Your task to perform on an android device: Add acer nitro to the cart on walmart Image 0: 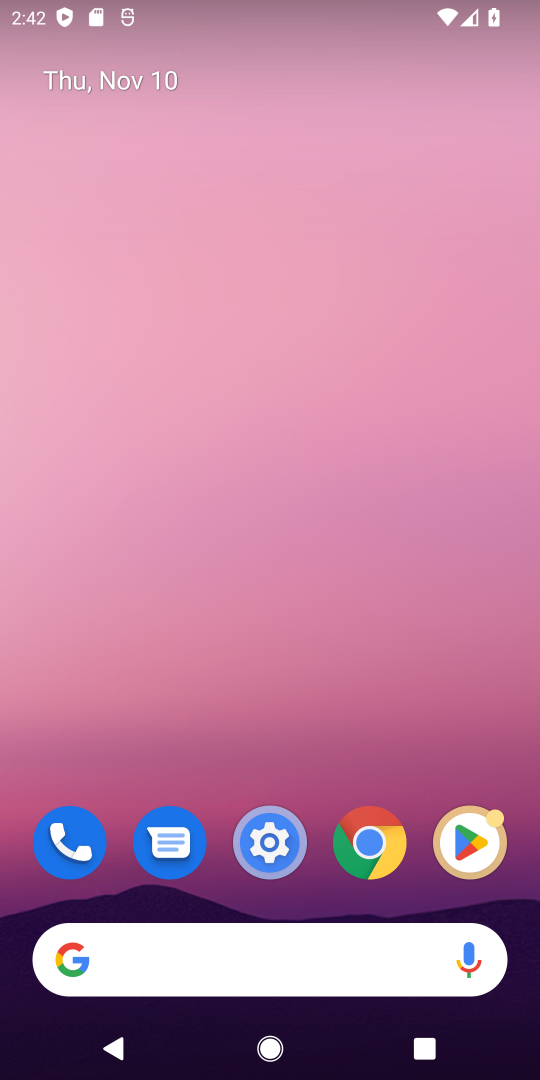
Step 0: press home button
Your task to perform on an android device: Add acer nitro to the cart on walmart Image 1: 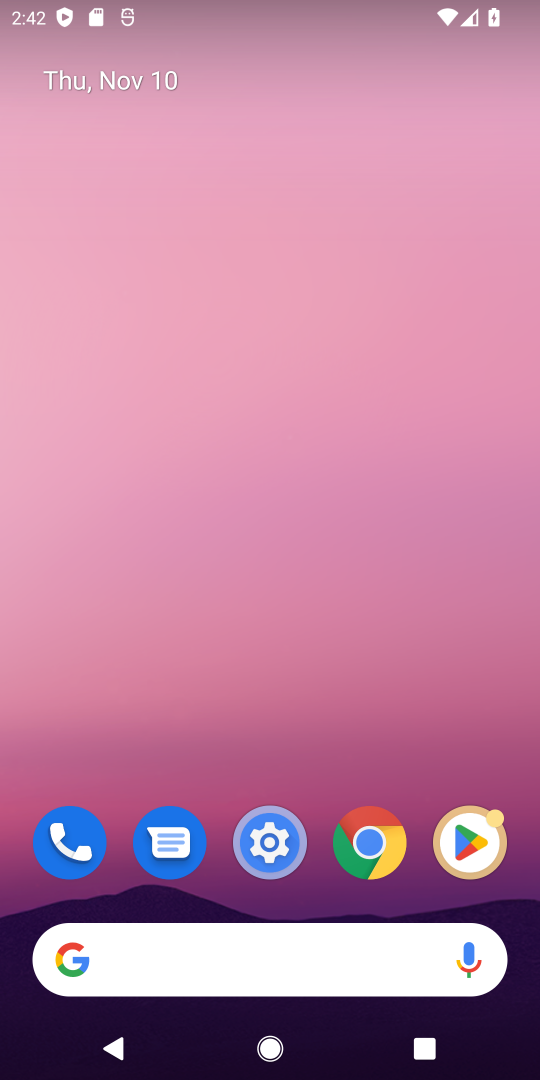
Step 1: click (115, 953)
Your task to perform on an android device: Add acer nitro to the cart on walmart Image 2: 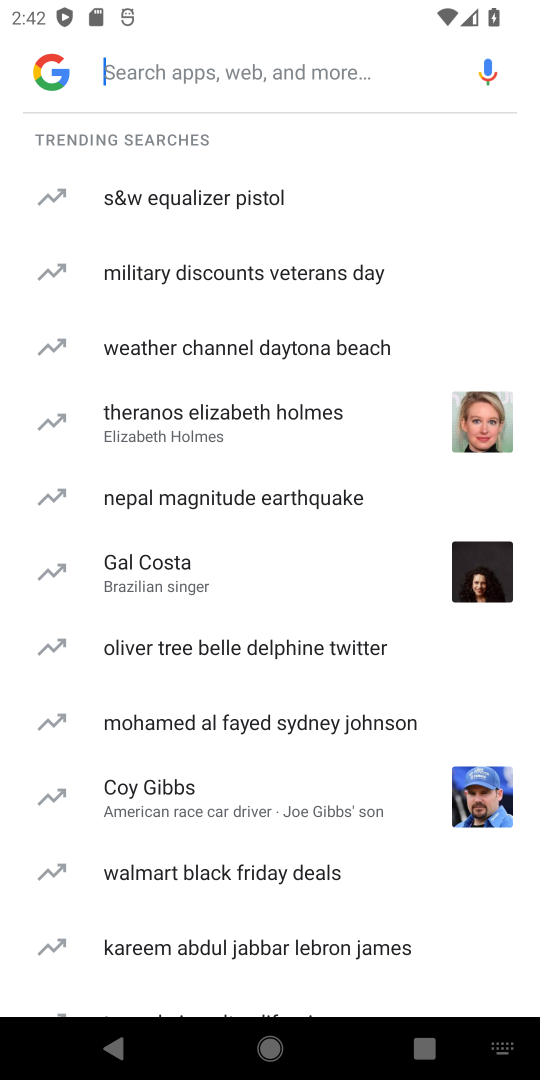
Step 2: type "walmart"
Your task to perform on an android device: Add acer nitro to the cart on walmart Image 3: 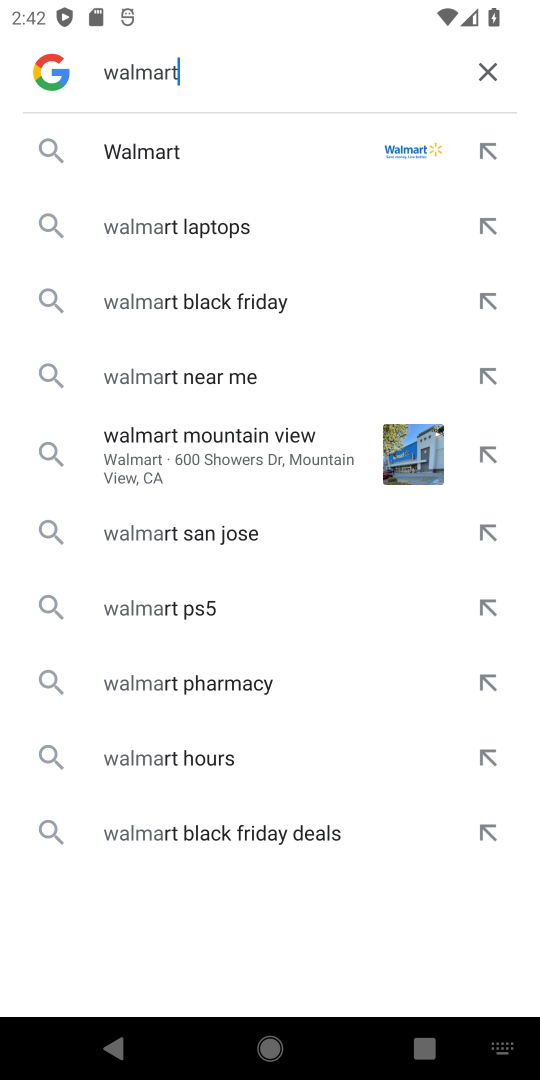
Step 3: press enter
Your task to perform on an android device: Add acer nitro to the cart on walmart Image 4: 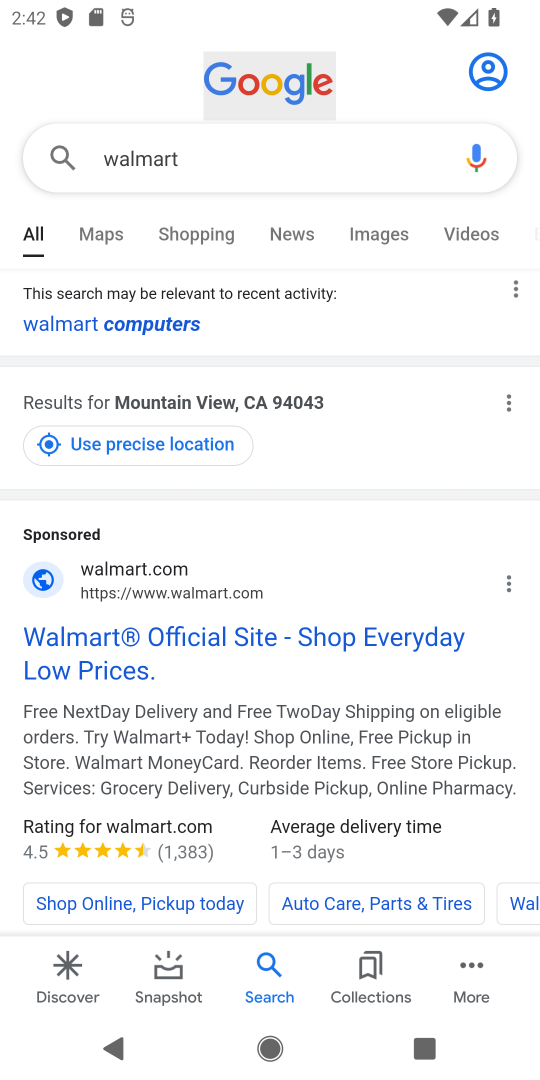
Step 4: click (104, 641)
Your task to perform on an android device: Add acer nitro to the cart on walmart Image 5: 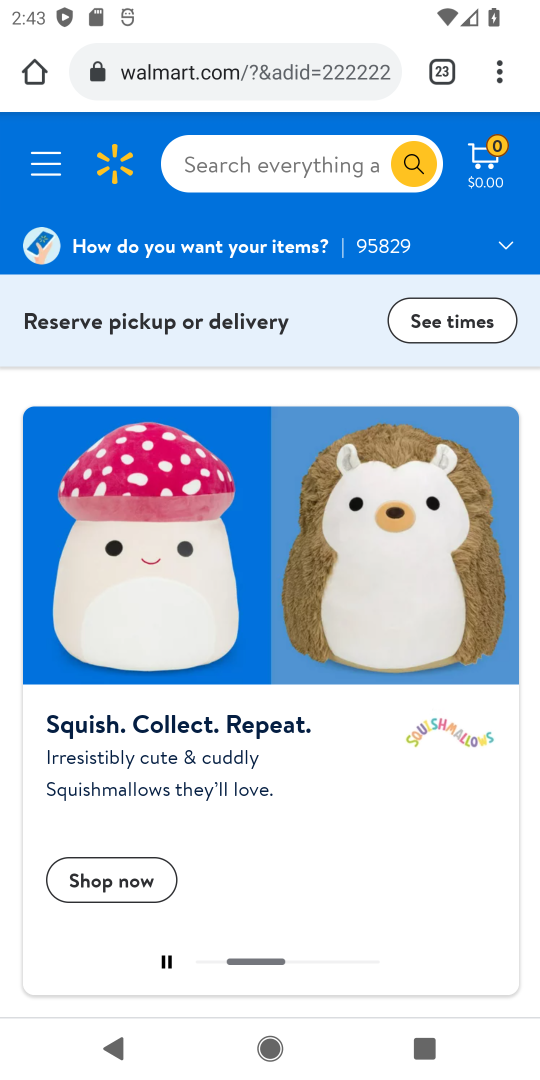
Step 5: click (197, 154)
Your task to perform on an android device: Add acer nitro to the cart on walmart Image 6: 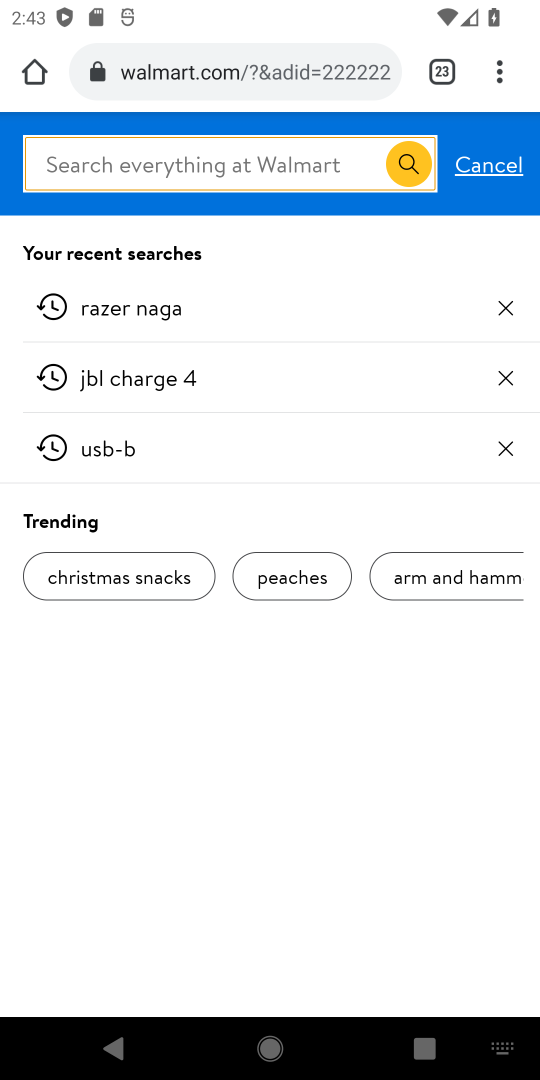
Step 6: type "acer nitro"
Your task to perform on an android device: Add acer nitro to the cart on walmart Image 7: 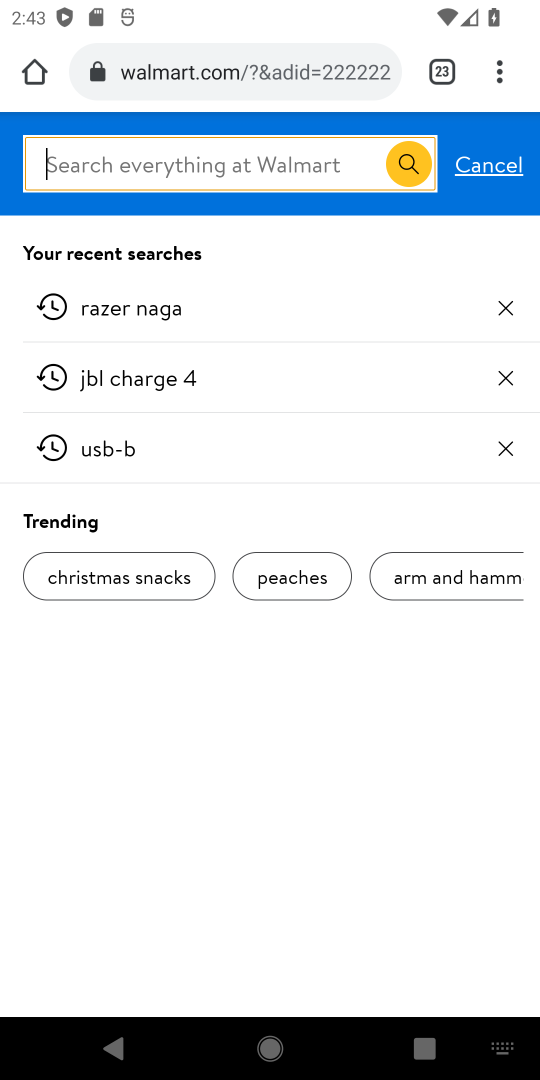
Step 7: press enter
Your task to perform on an android device: Add acer nitro to the cart on walmart Image 8: 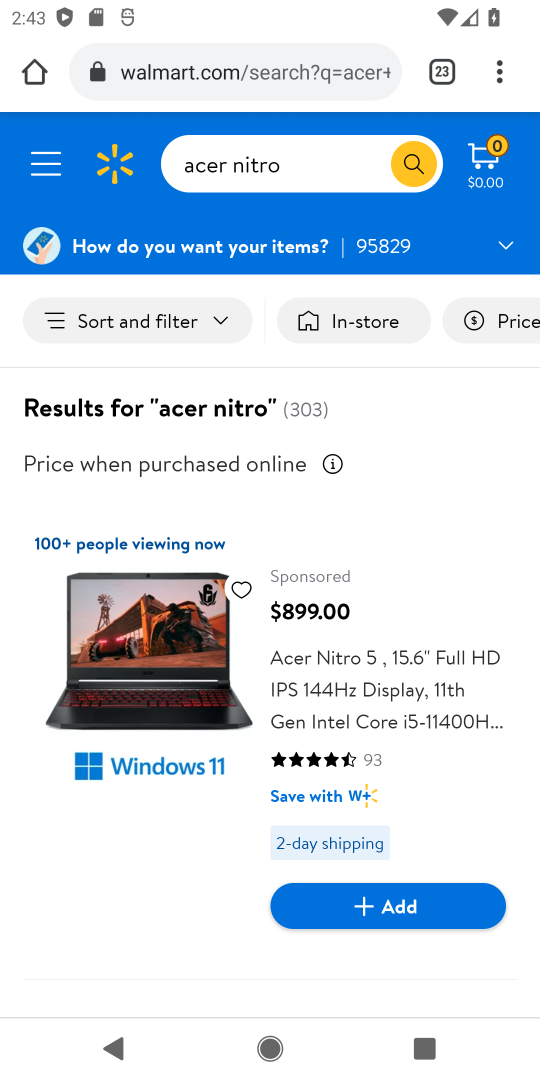
Step 8: drag from (415, 794) to (395, 456)
Your task to perform on an android device: Add acer nitro to the cart on walmart Image 9: 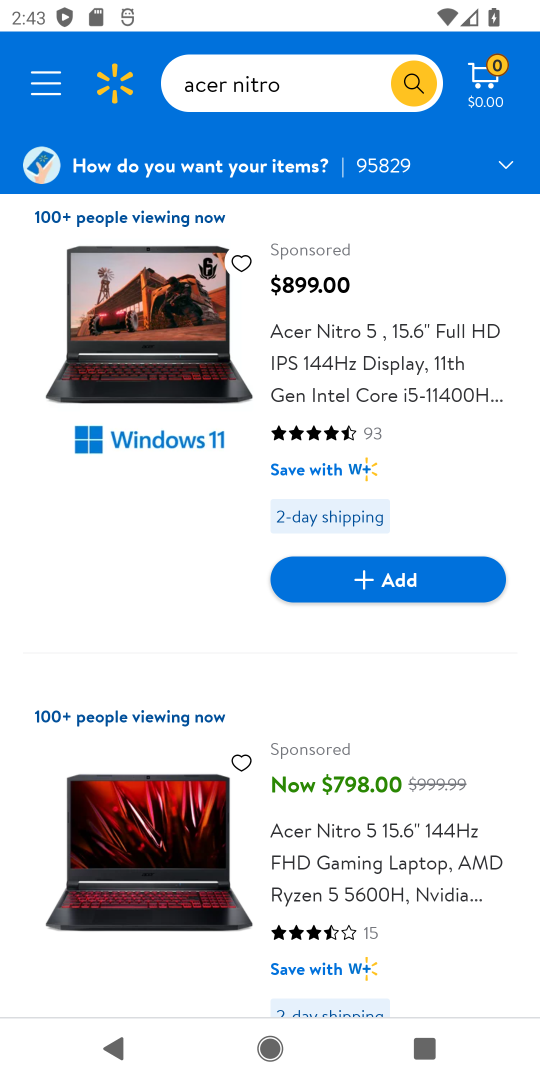
Step 9: click (424, 580)
Your task to perform on an android device: Add acer nitro to the cart on walmart Image 10: 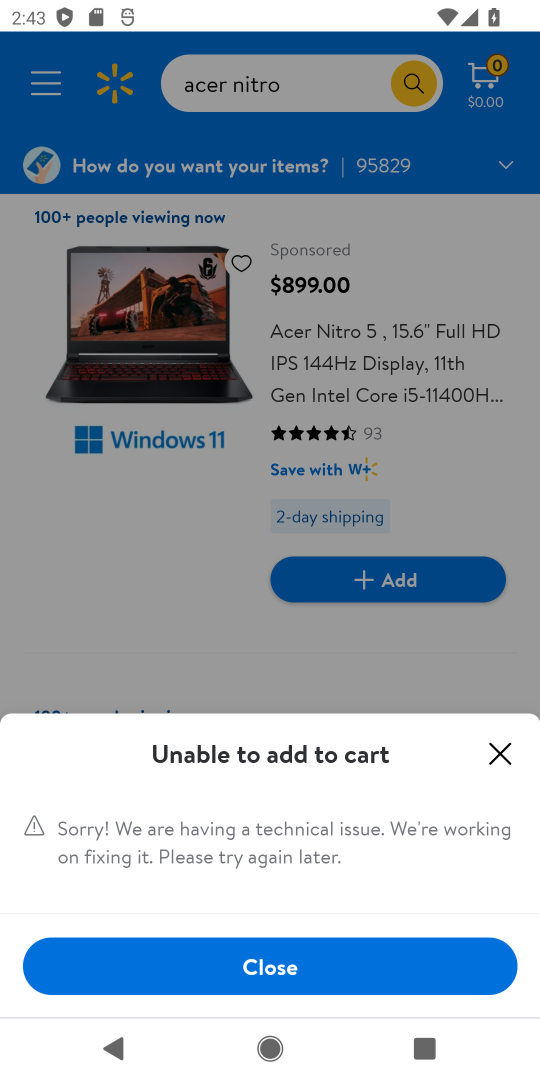
Step 10: task complete